Your task to perform on an android device: Go to display settings Image 0: 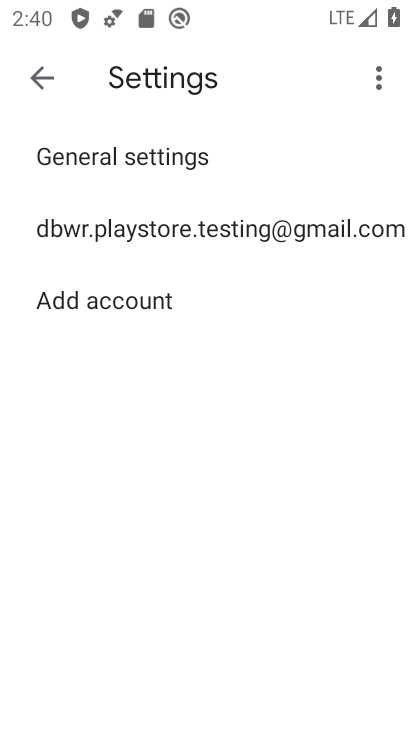
Step 0: press home button
Your task to perform on an android device: Go to display settings Image 1: 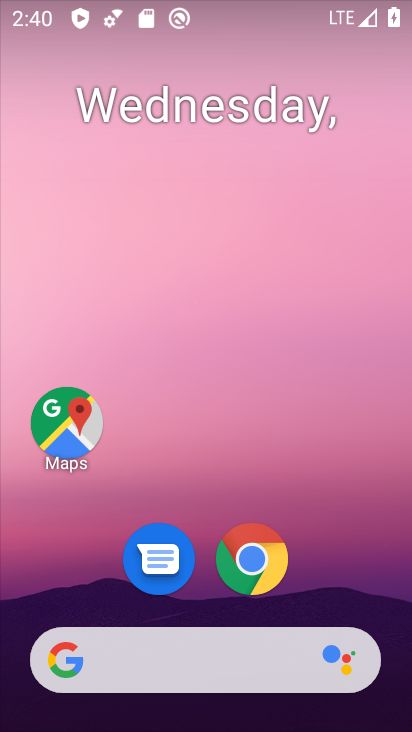
Step 1: drag from (379, 543) to (343, 157)
Your task to perform on an android device: Go to display settings Image 2: 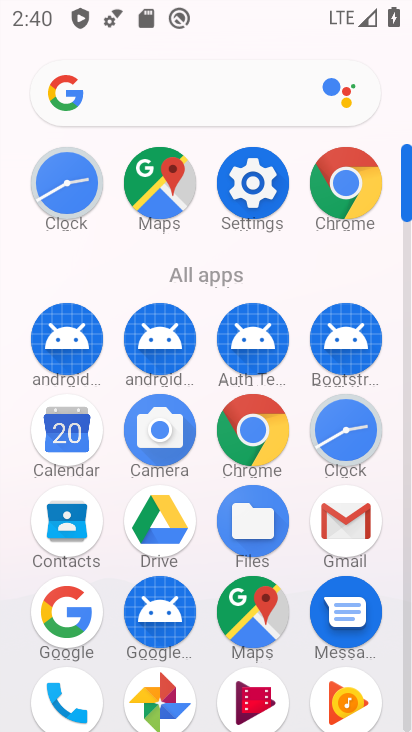
Step 2: click (253, 163)
Your task to perform on an android device: Go to display settings Image 3: 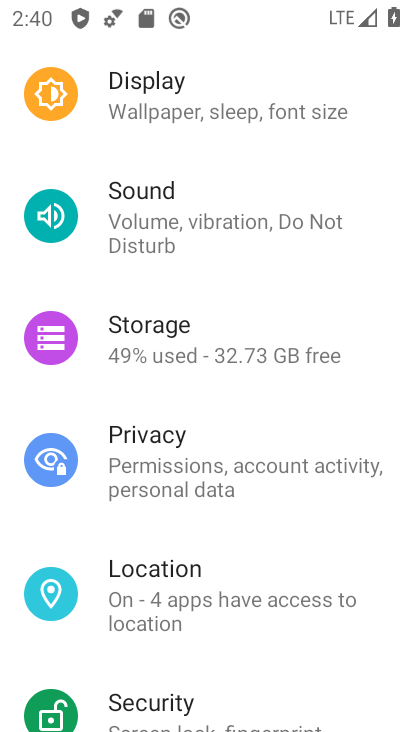
Step 3: click (209, 101)
Your task to perform on an android device: Go to display settings Image 4: 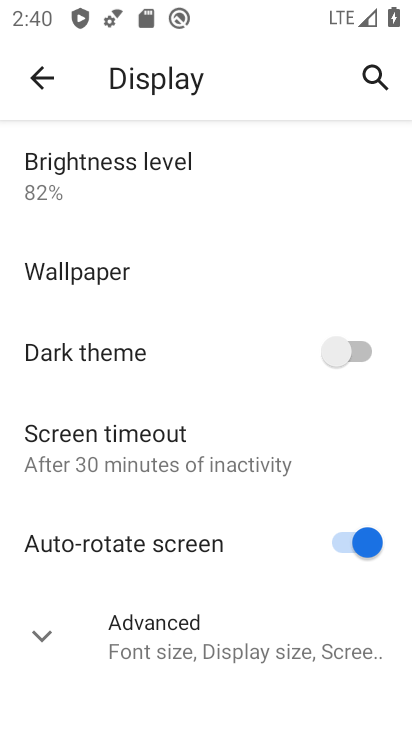
Step 4: task complete